Your task to perform on an android device: Open privacy settings Image 0: 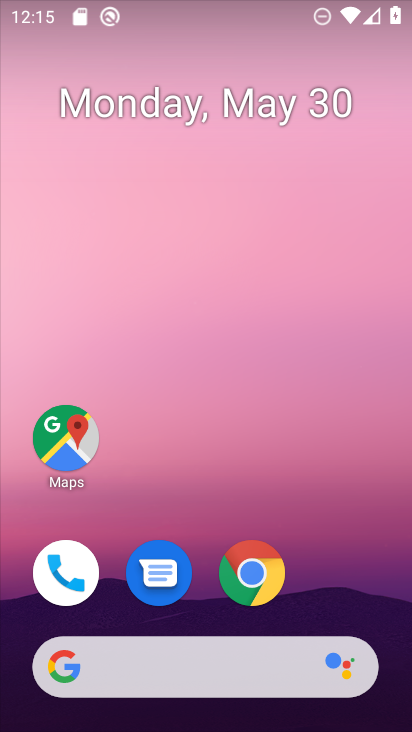
Step 0: press home button
Your task to perform on an android device: Open privacy settings Image 1: 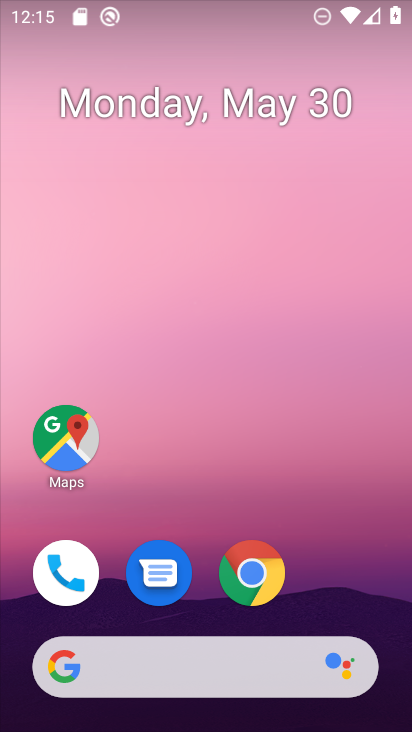
Step 1: drag from (327, 606) to (282, 134)
Your task to perform on an android device: Open privacy settings Image 2: 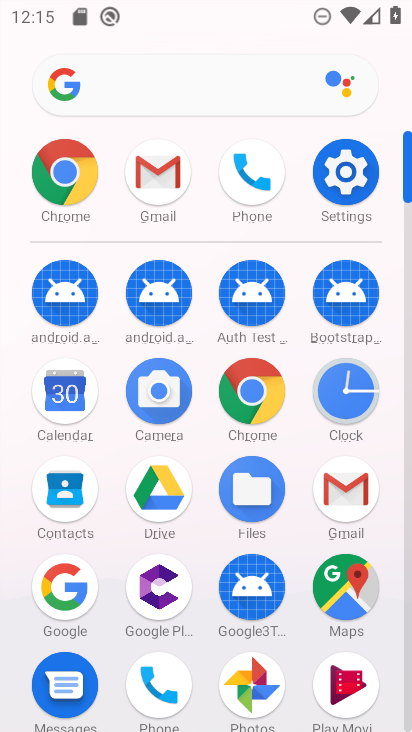
Step 2: click (360, 176)
Your task to perform on an android device: Open privacy settings Image 3: 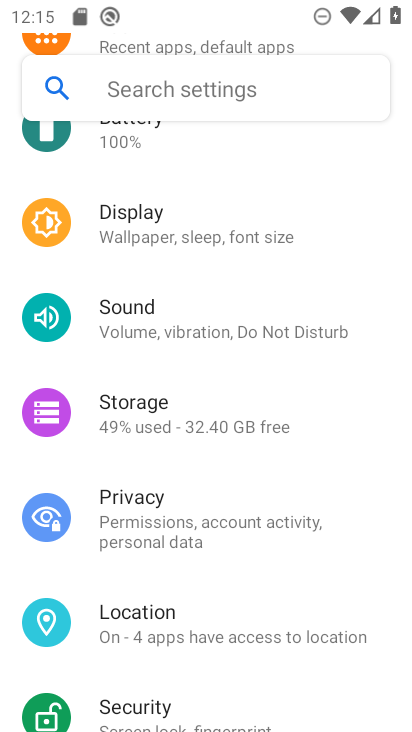
Step 3: click (146, 530)
Your task to perform on an android device: Open privacy settings Image 4: 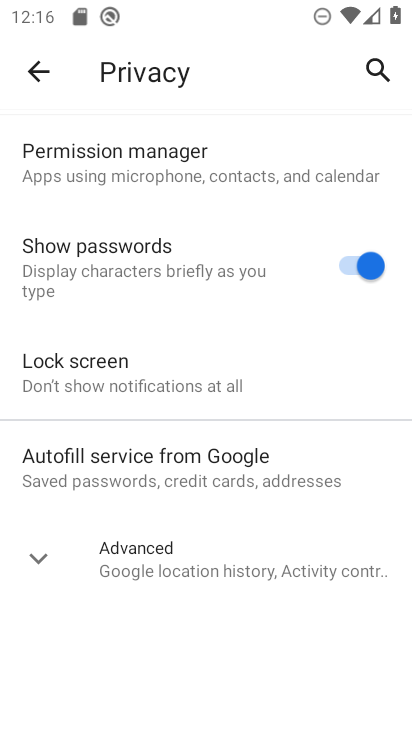
Step 4: task complete